Your task to perform on an android device: Go to location settings Image 0: 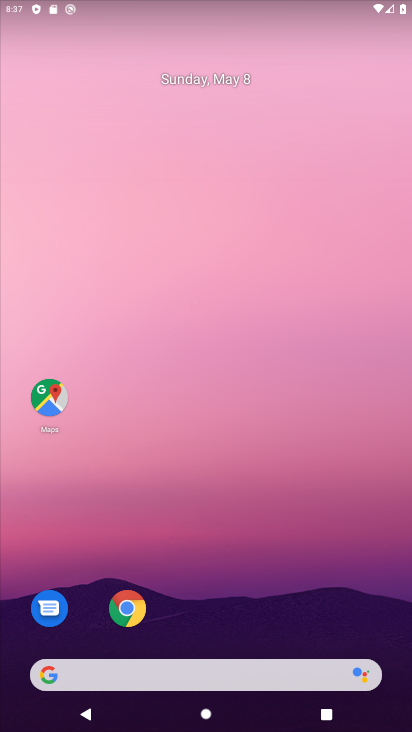
Step 0: drag from (248, 578) to (168, 27)
Your task to perform on an android device: Go to location settings Image 1: 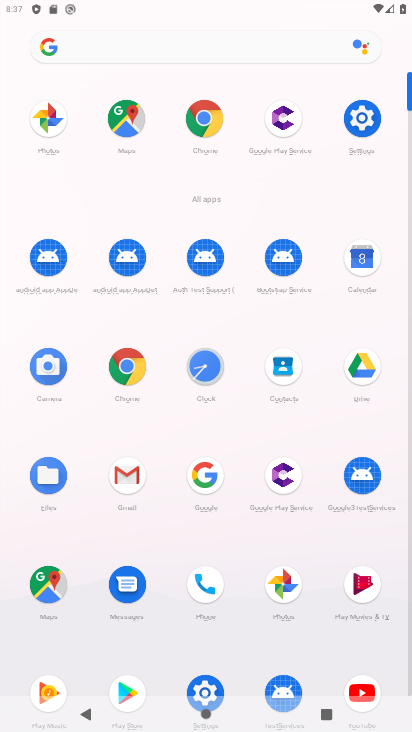
Step 1: click (363, 120)
Your task to perform on an android device: Go to location settings Image 2: 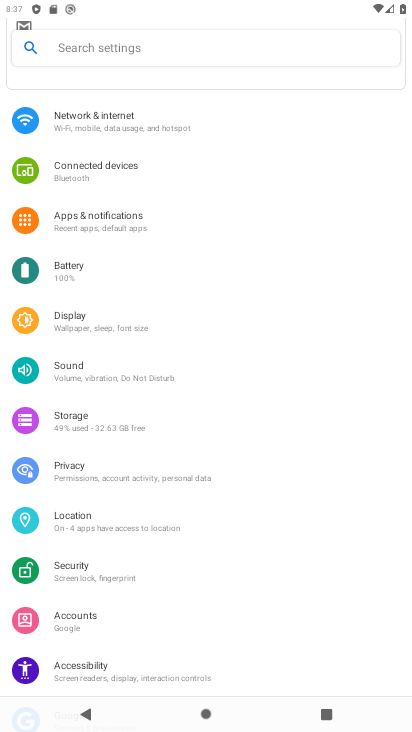
Step 2: click (70, 520)
Your task to perform on an android device: Go to location settings Image 3: 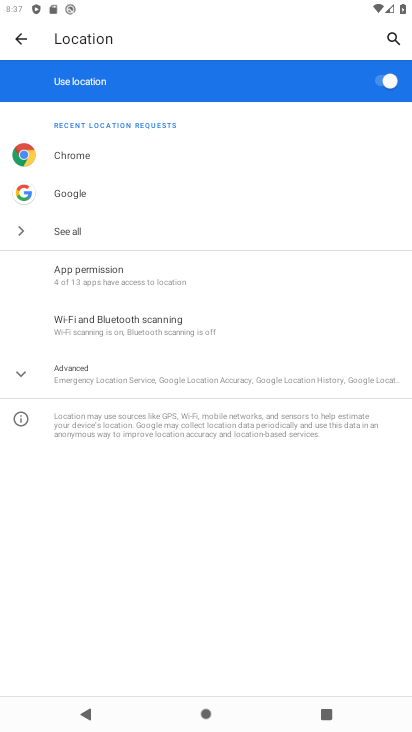
Step 3: task complete